Your task to perform on an android device: toggle javascript in the chrome app Image 0: 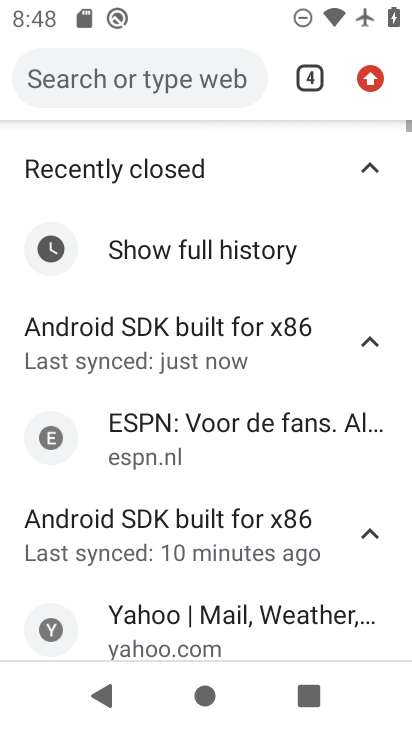
Step 0: press home button
Your task to perform on an android device: toggle javascript in the chrome app Image 1: 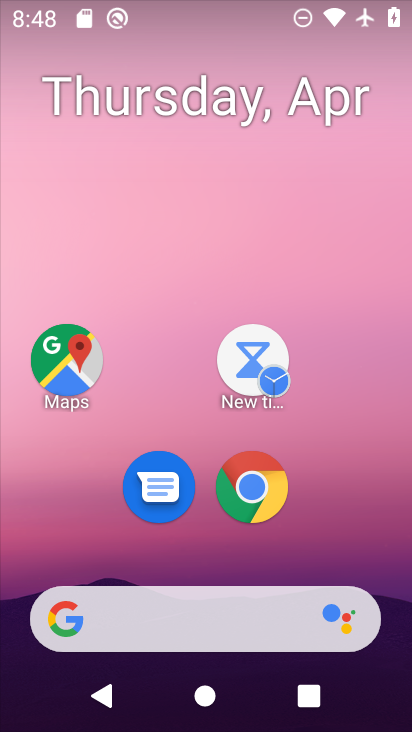
Step 1: click (267, 492)
Your task to perform on an android device: toggle javascript in the chrome app Image 2: 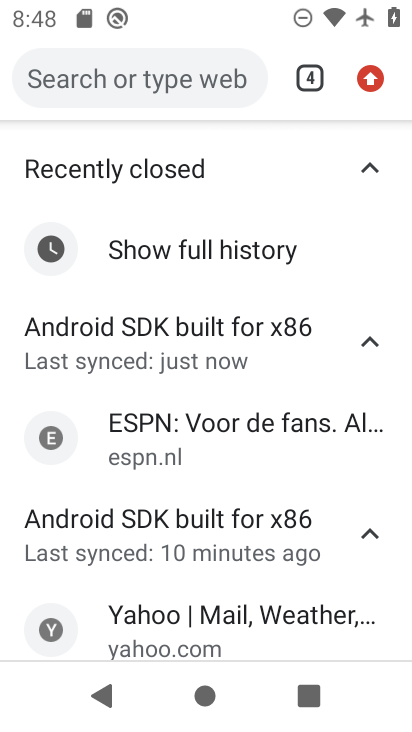
Step 2: drag from (371, 85) to (96, 545)
Your task to perform on an android device: toggle javascript in the chrome app Image 3: 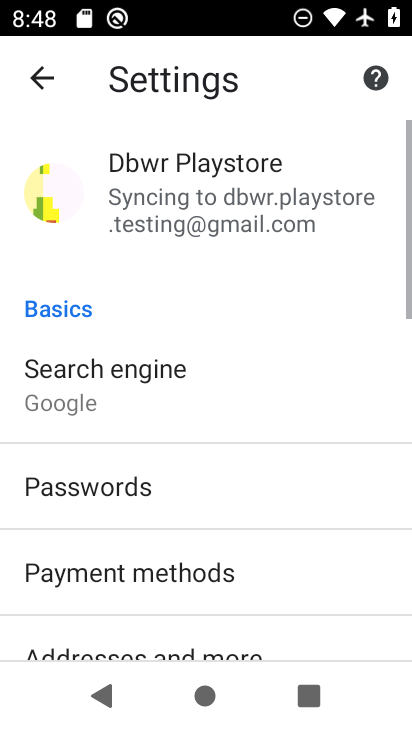
Step 3: drag from (180, 580) to (189, 189)
Your task to perform on an android device: toggle javascript in the chrome app Image 4: 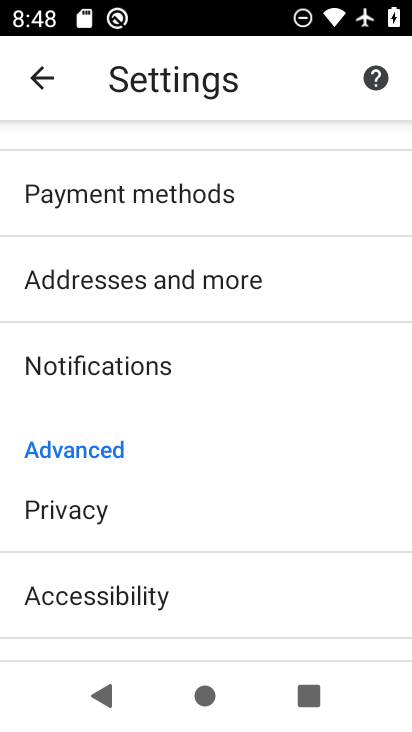
Step 4: drag from (189, 538) to (179, 346)
Your task to perform on an android device: toggle javascript in the chrome app Image 5: 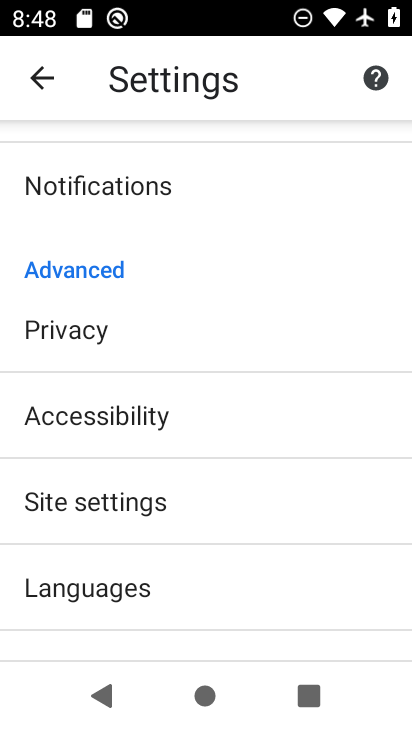
Step 5: click (96, 506)
Your task to perform on an android device: toggle javascript in the chrome app Image 6: 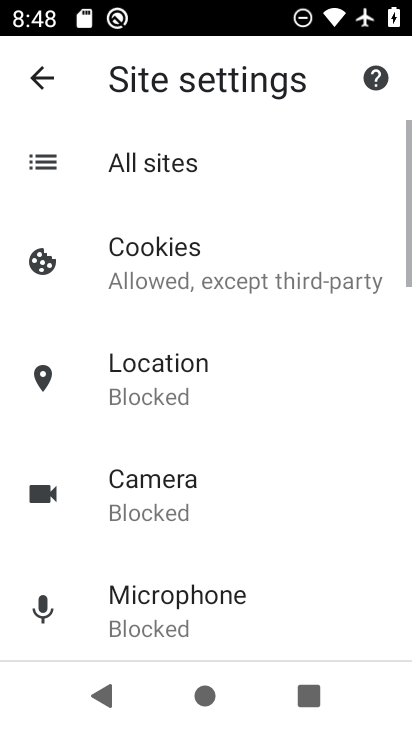
Step 6: drag from (274, 515) to (279, 248)
Your task to perform on an android device: toggle javascript in the chrome app Image 7: 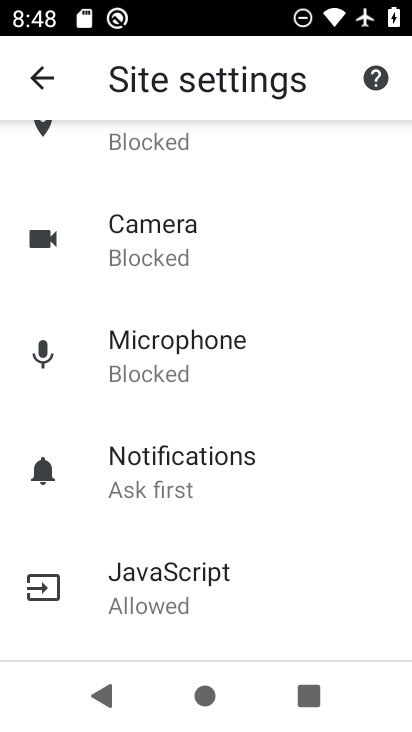
Step 7: click (127, 604)
Your task to perform on an android device: toggle javascript in the chrome app Image 8: 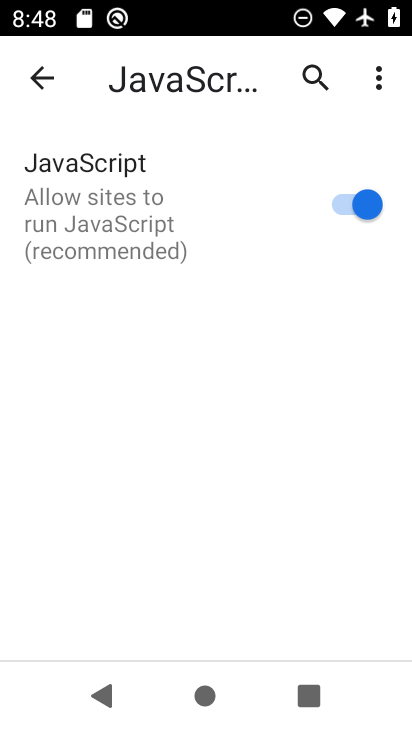
Step 8: click (374, 210)
Your task to perform on an android device: toggle javascript in the chrome app Image 9: 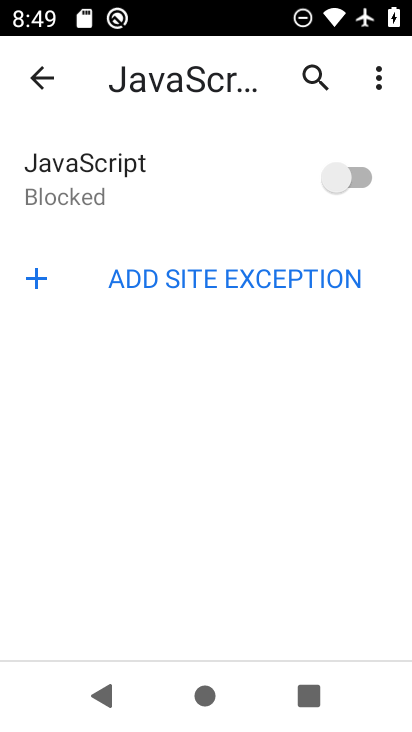
Step 9: task complete